Your task to perform on an android device: What's the weather going to be this weekend? Image 0: 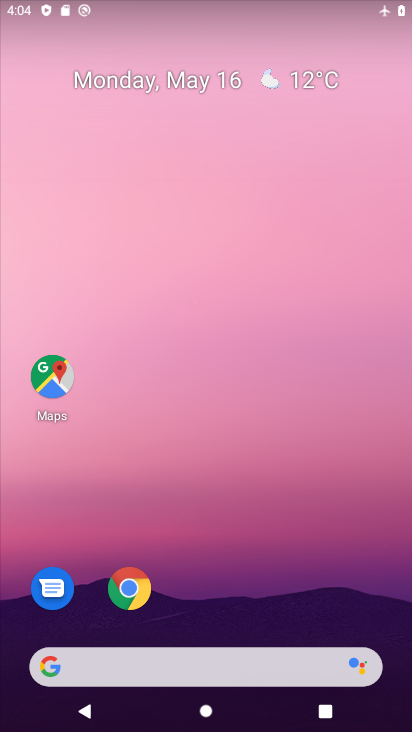
Step 0: click (306, 73)
Your task to perform on an android device: What's the weather going to be this weekend? Image 1: 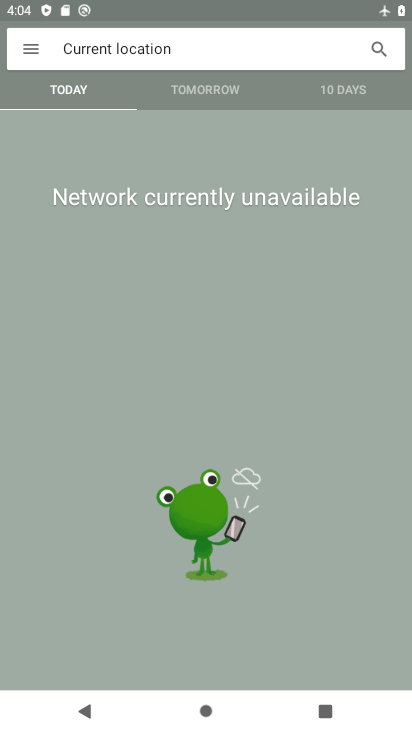
Step 1: click (329, 91)
Your task to perform on an android device: What's the weather going to be this weekend? Image 2: 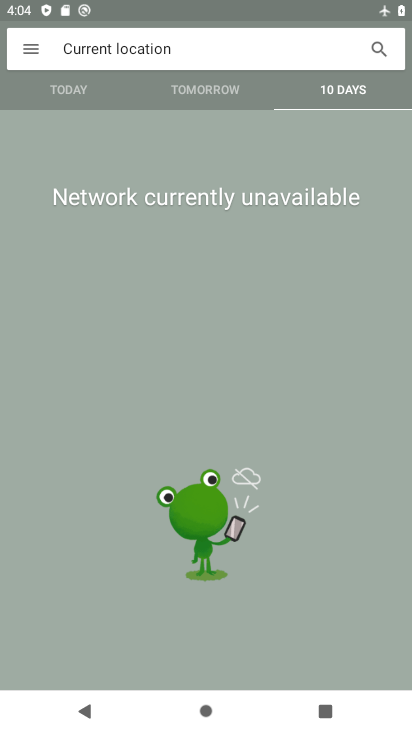
Step 2: click (329, 91)
Your task to perform on an android device: What's the weather going to be this weekend? Image 3: 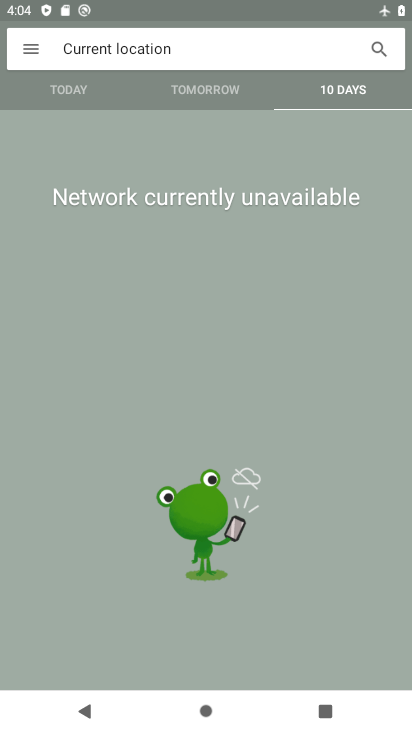
Step 3: drag from (338, 2) to (338, 510)
Your task to perform on an android device: What's the weather going to be this weekend? Image 4: 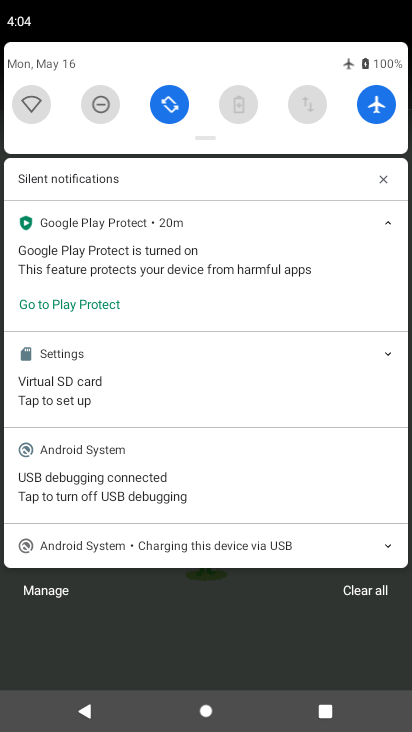
Step 4: click (377, 104)
Your task to perform on an android device: What's the weather going to be this weekend? Image 5: 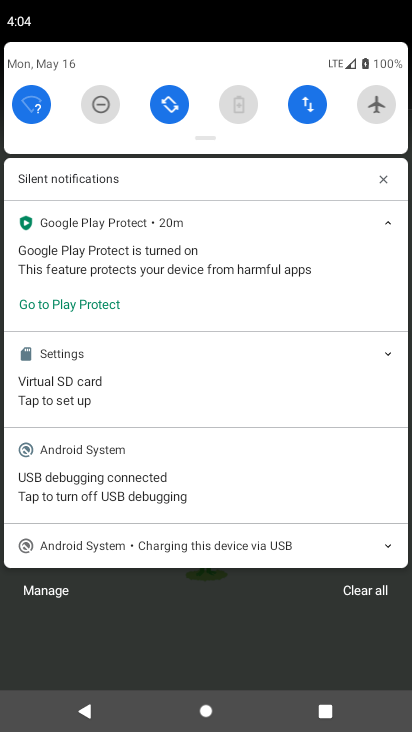
Step 5: drag from (314, 576) to (305, 130)
Your task to perform on an android device: What's the weather going to be this weekend? Image 6: 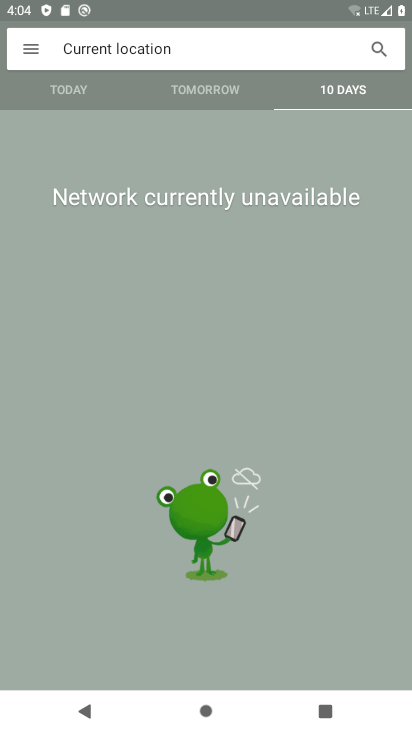
Step 6: drag from (262, 224) to (284, 509)
Your task to perform on an android device: What's the weather going to be this weekend? Image 7: 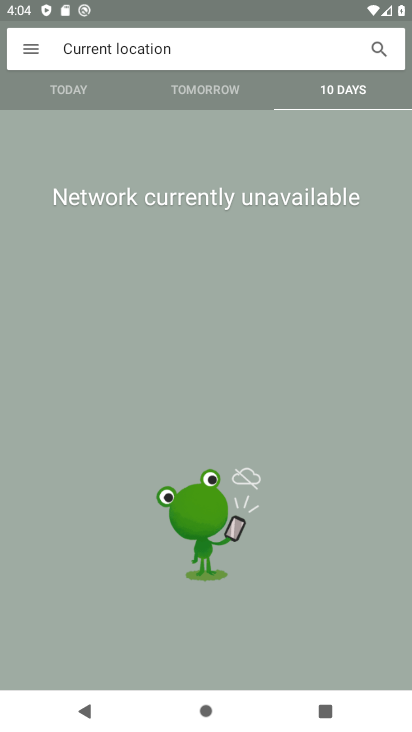
Step 7: click (350, 84)
Your task to perform on an android device: What's the weather going to be this weekend? Image 8: 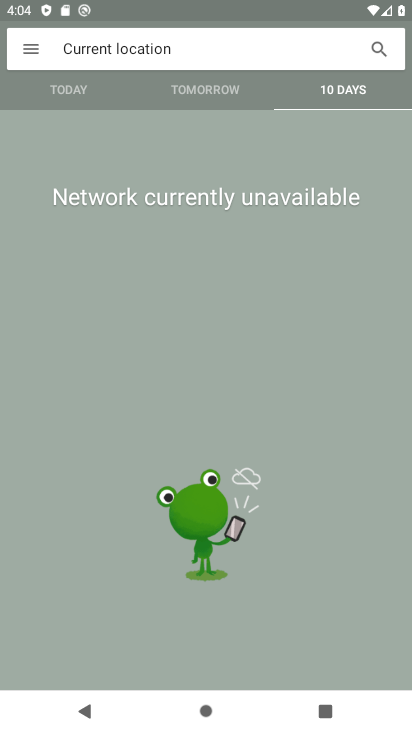
Step 8: click (207, 94)
Your task to perform on an android device: What's the weather going to be this weekend? Image 9: 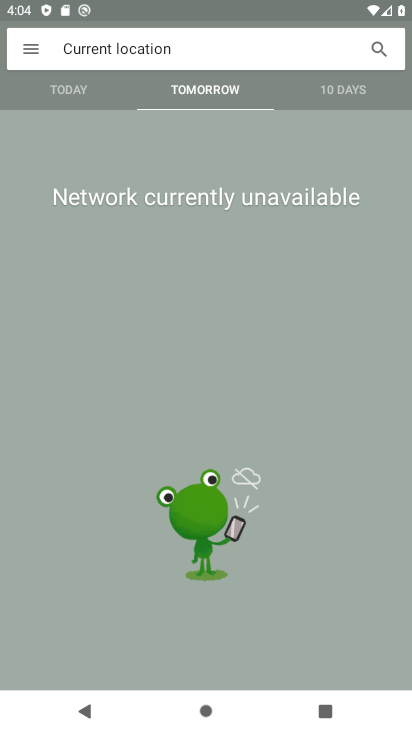
Step 9: click (363, 82)
Your task to perform on an android device: What's the weather going to be this weekend? Image 10: 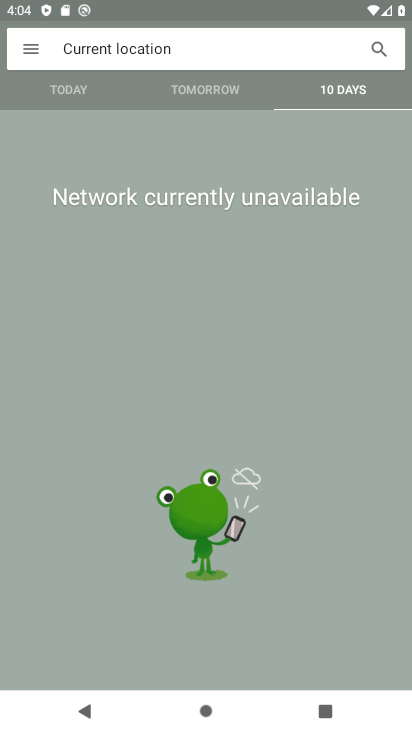
Step 10: task complete